Your task to perform on an android device: What's the weather today? Image 0: 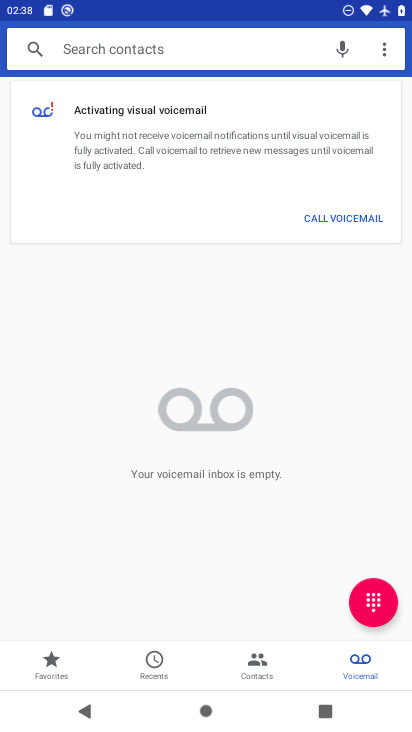
Step 0: press home button
Your task to perform on an android device: What's the weather today? Image 1: 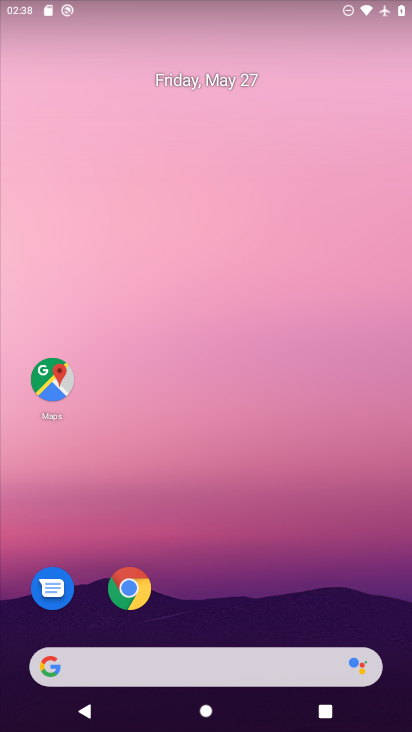
Step 1: click (163, 666)
Your task to perform on an android device: What's the weather today? Image 2: 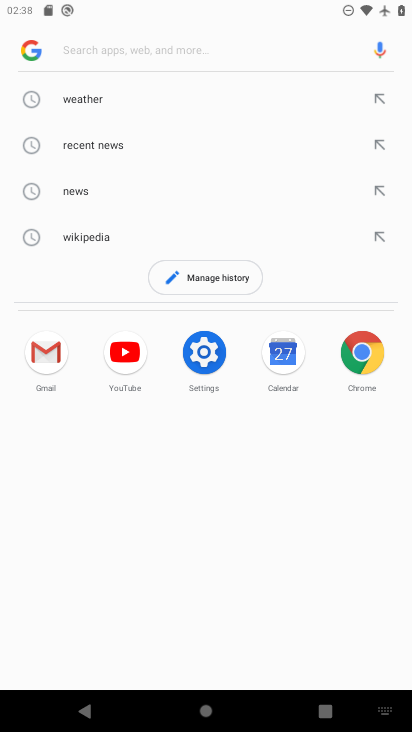
Step 2: click (92, 101)
Your task to perform on an android device: What's the weather today? Image 3: 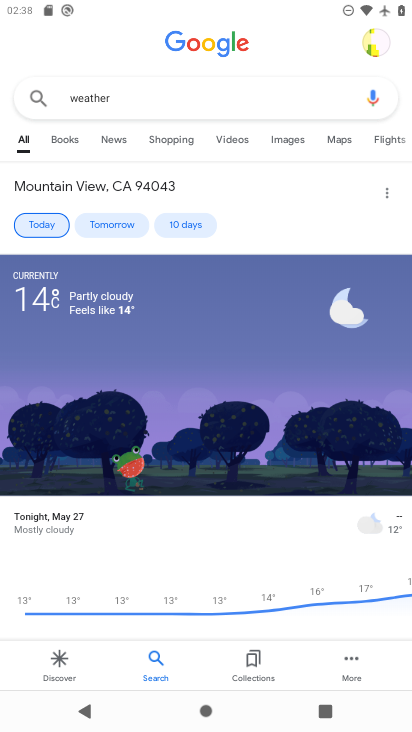
Step 3: drag from (273, 575) to (277, 253)
Your task to perform on an android device: What's the weather today? Image 4: 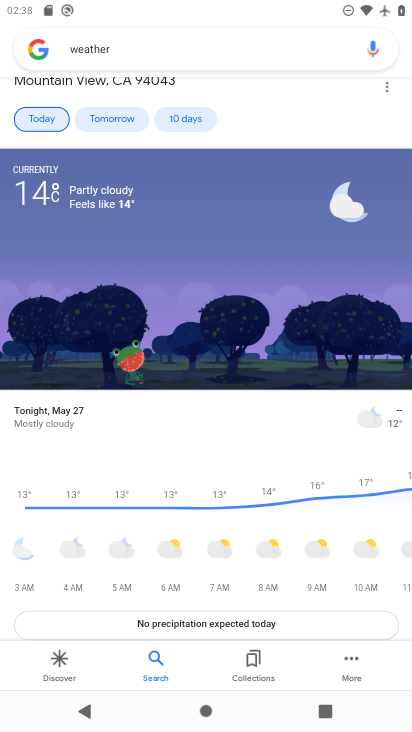
Step 4: drag from (364, 488) to (57, 512)
Your task to perform on an android device: What's the weather today? Image 5: 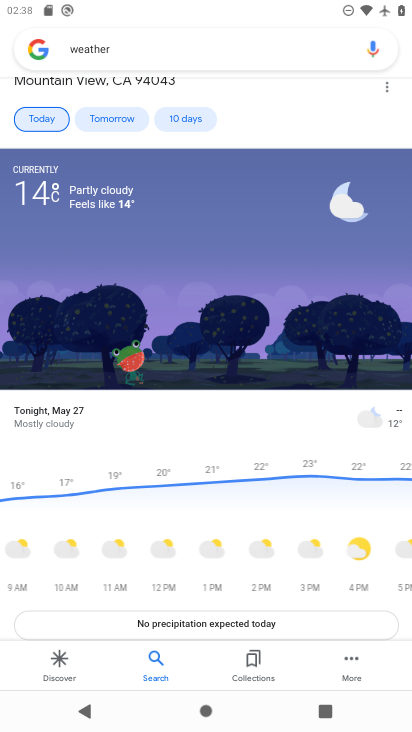
Step 5: drag from (303, 479) to (116, 486)
Your task to perform on an android device: What's the weather today? Image 6: 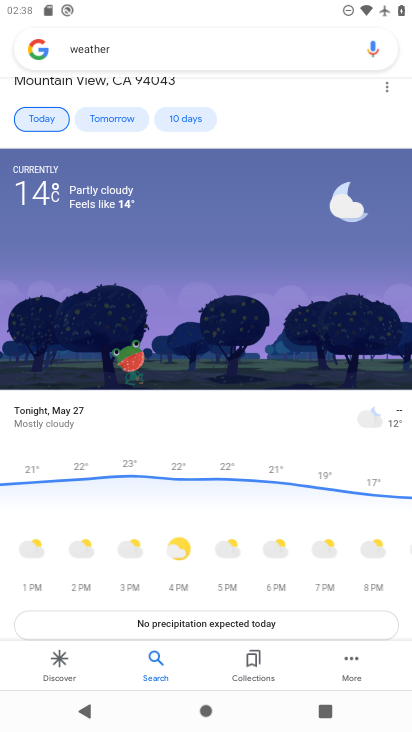
Step 6: click (145, 505)
Your task to perform on an android device: What's the weather today? Image 7: 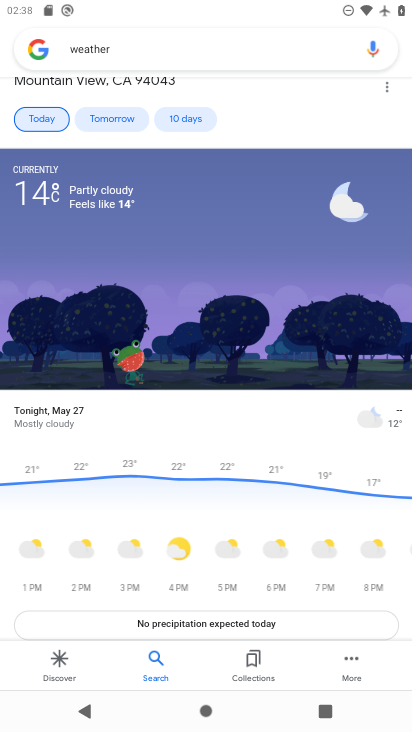
Step 7: task complete